Your task to perform on an android device: open app "Venmo" (install if not already installed), go to login, and select forgot password Image 0: 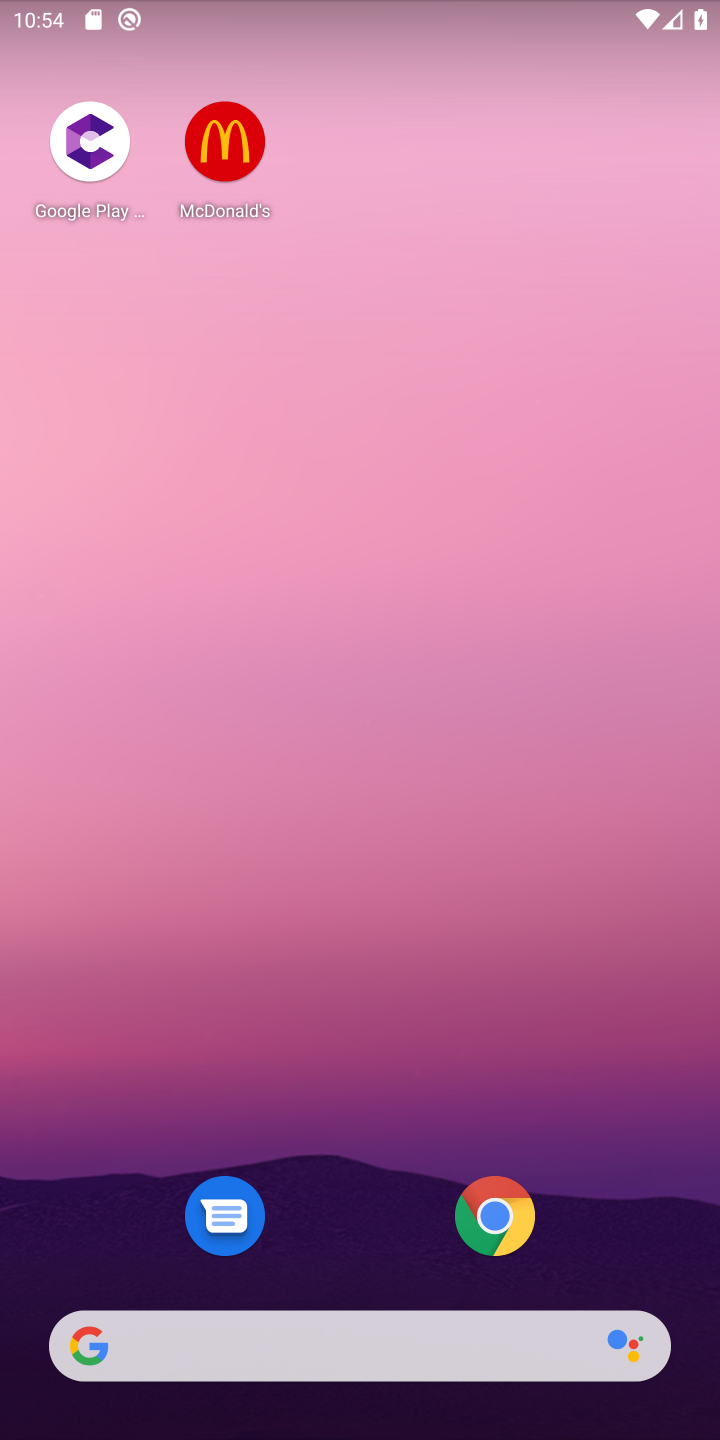
Step 0: drag from (422, 1081) to (452, 438)
Your task to perform on an android device: open app "Venmo" (install if not already installed), go to login, and select forgot password Image 1: 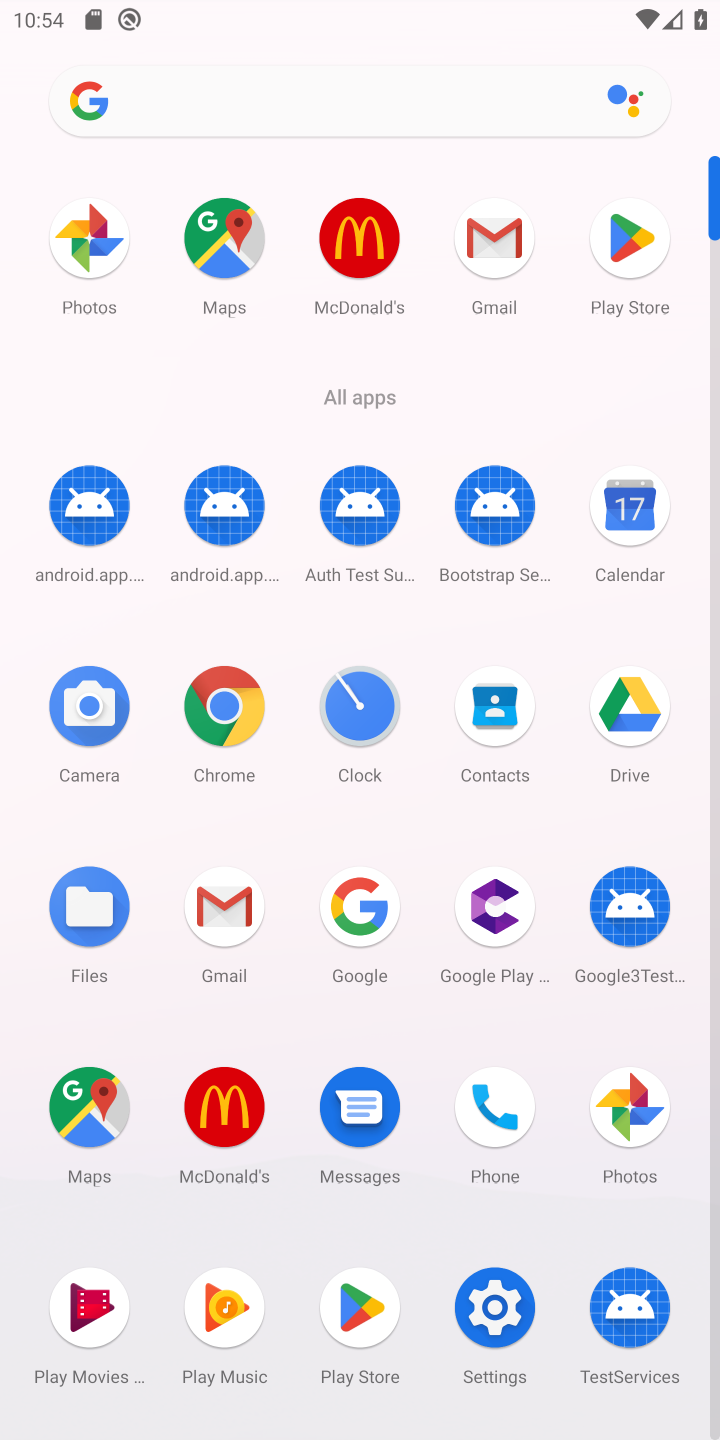
Step 1: click (639, 262)
Your task to perform on an android device: open app "Venmo" (install if not already installed), go to login, and select forgot password Image 2: 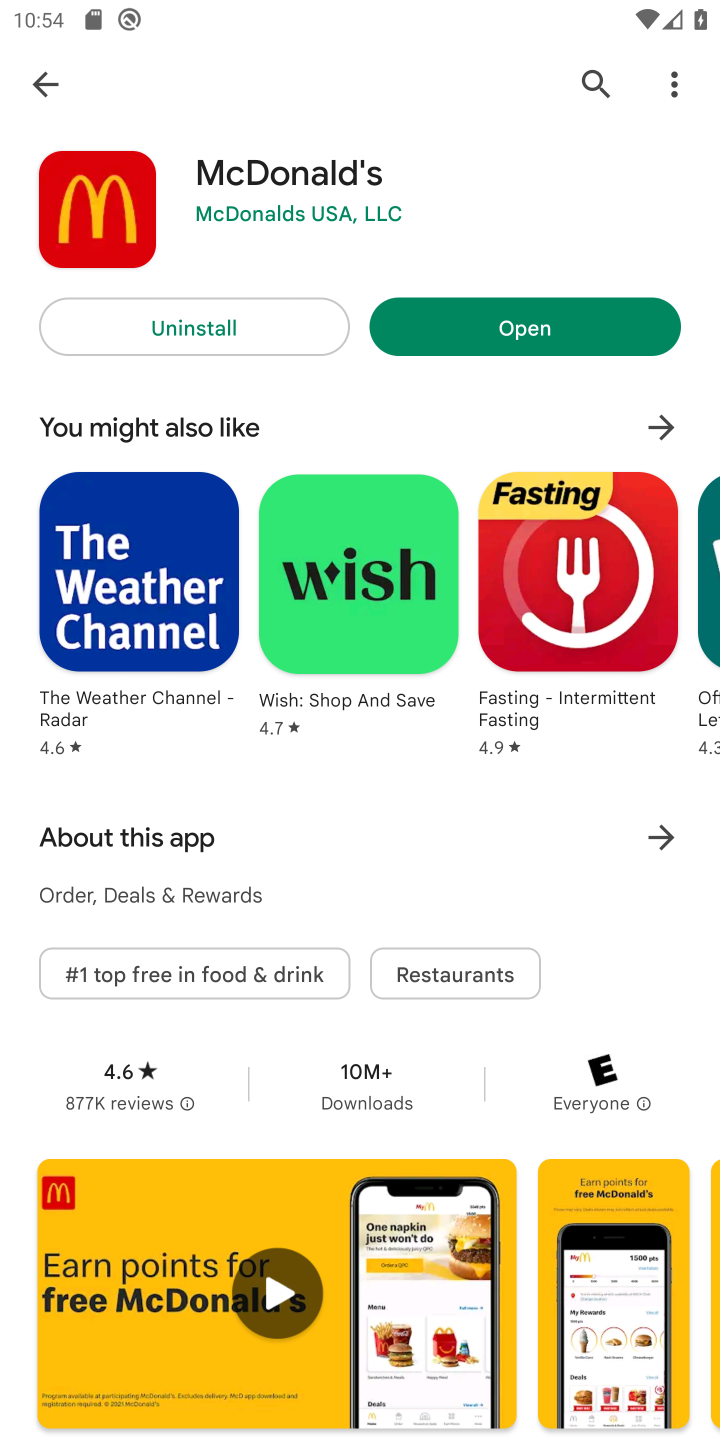
Step 2: click (598, 64)
Your task to perform on an android device: open app "Venmo" (install if not already installed), go to login, and select forgot password Image 3: 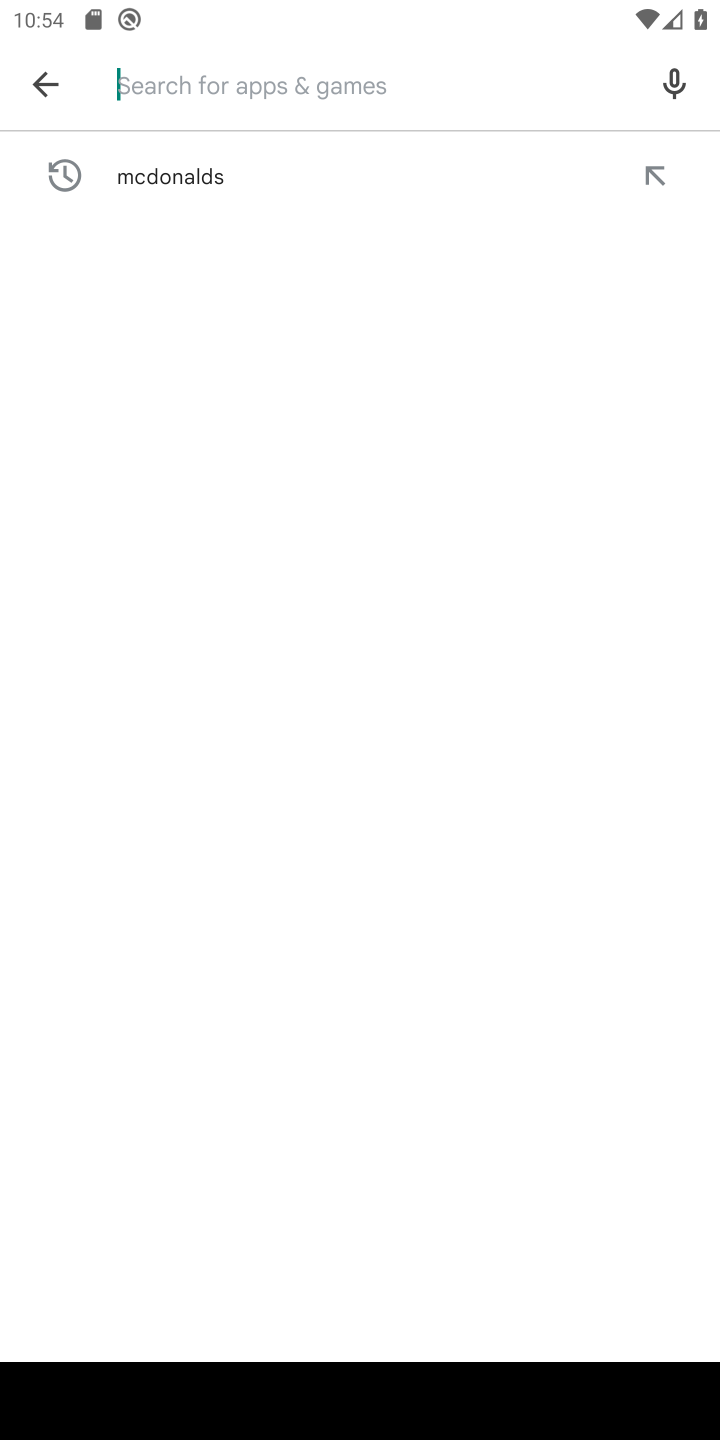
Step 3: type "venmo"
Your task to perform on an android device: open app "Venmo" (install if not already installed), go to login, and select forgot password Image 4: 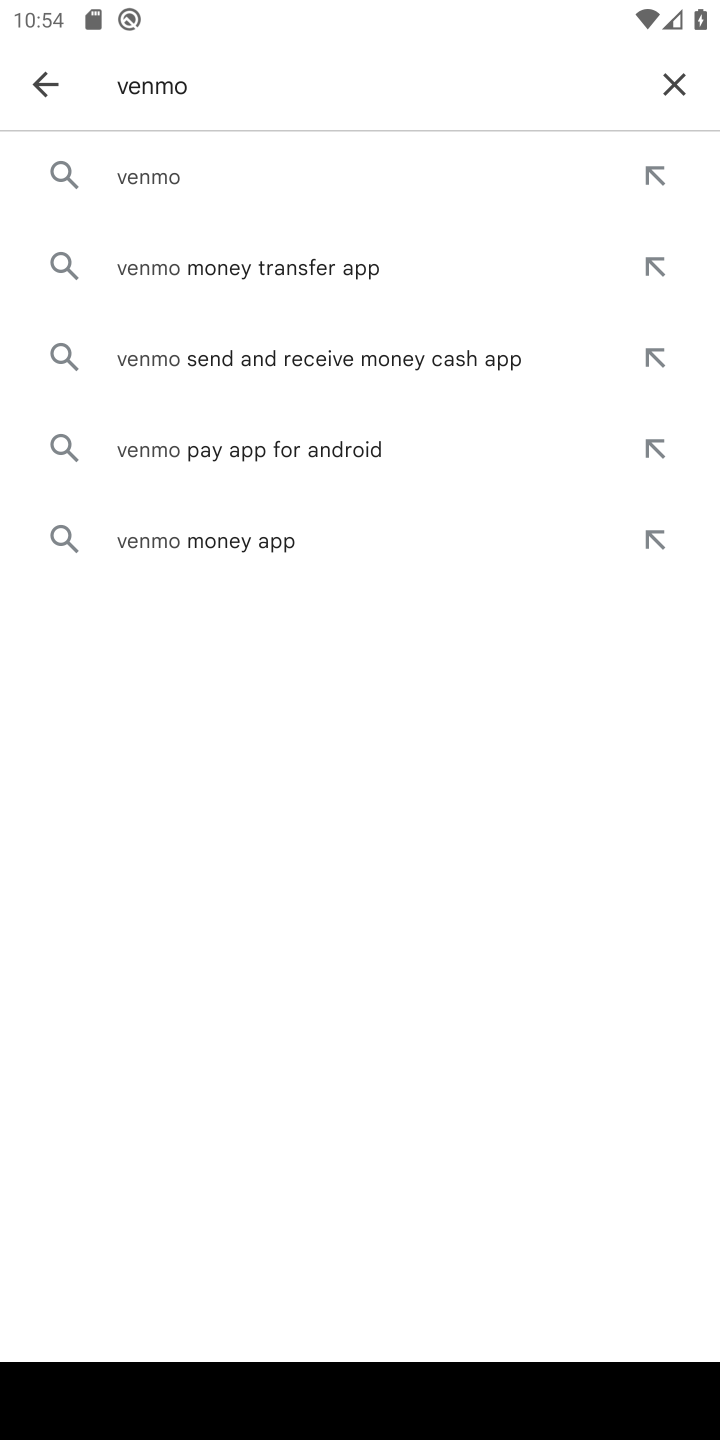
Step 4: click (418, 164)
Your task to perform on an android device: open app "Venmo" (install if not already installed), go to login, and select forgot password Image 5: 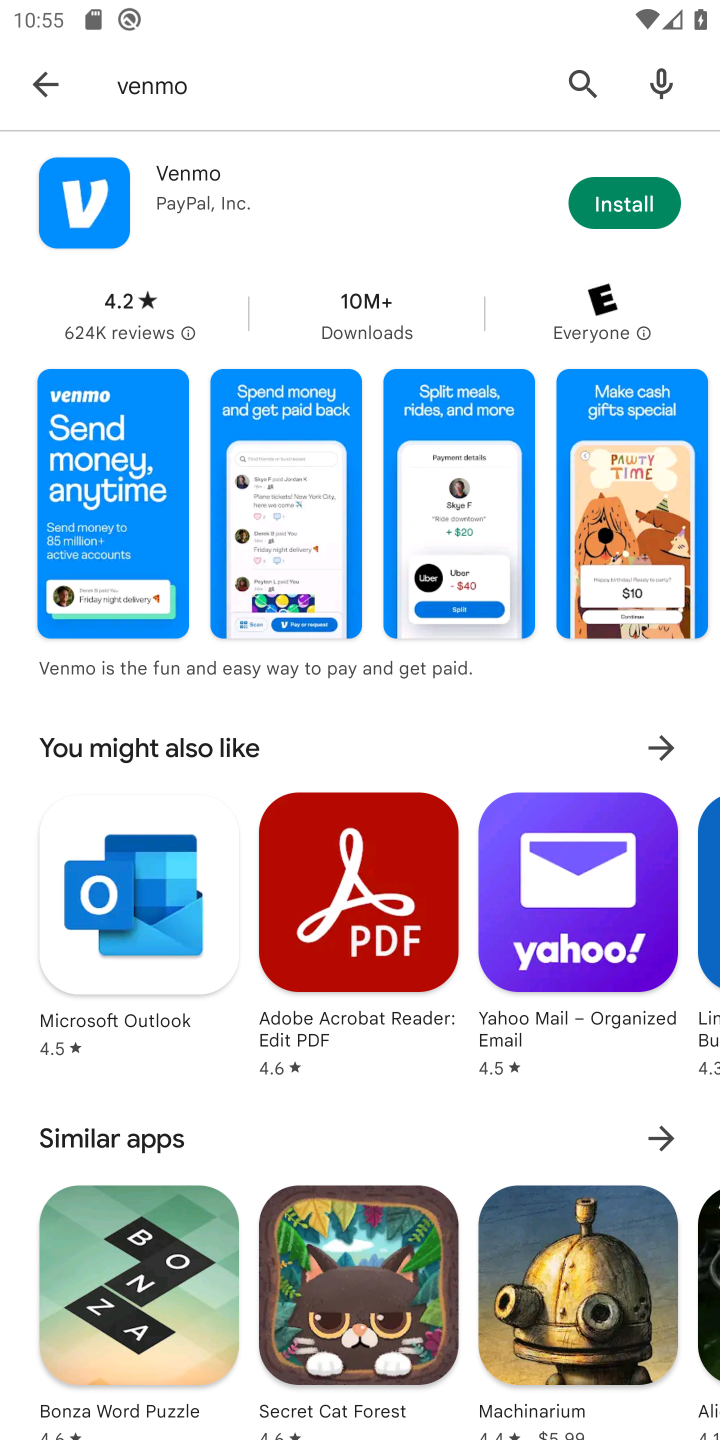
Step 5: click (651, 201)
Your task to perform on an android device: open app "Venmo" (install if not already installed), go to login, and select forgot password Image 6: 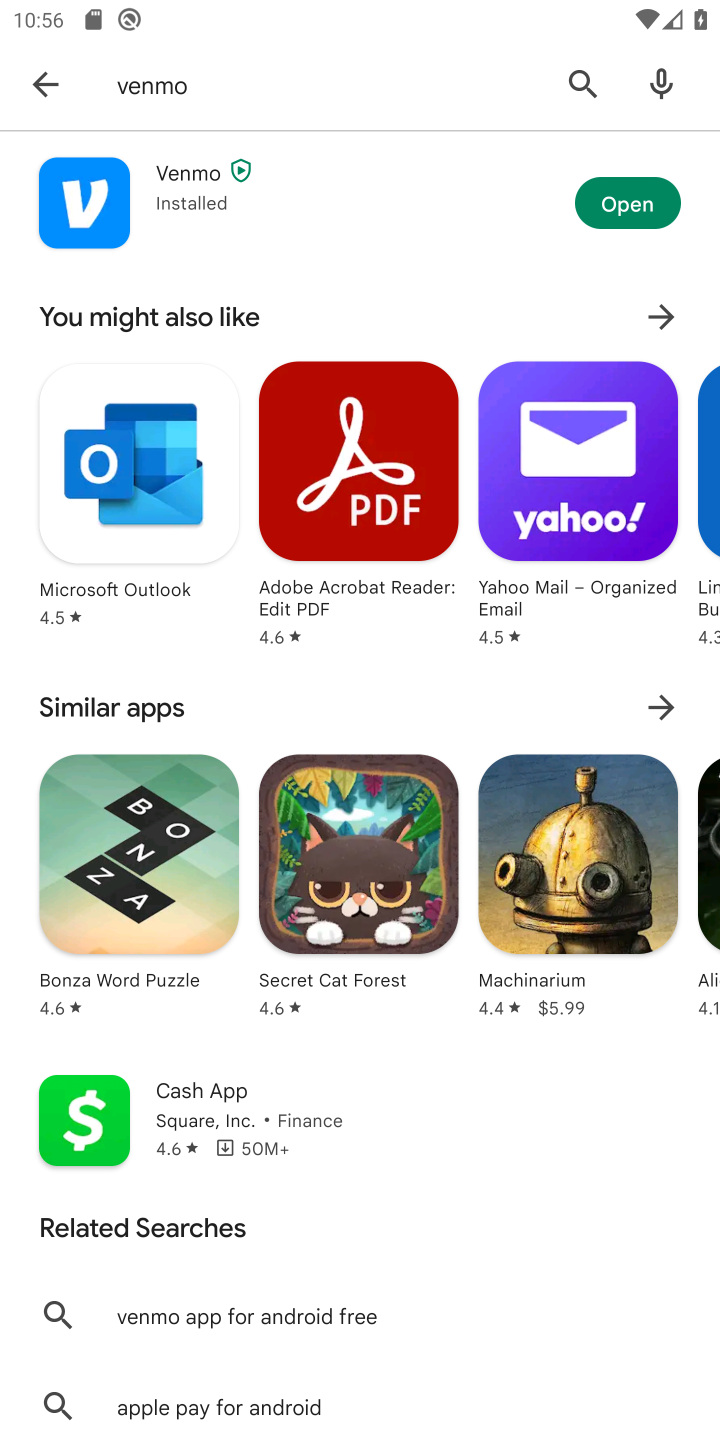
Step 6: click (607, 225)
Your task to perform on an android device: open app "Venmo" (install if not already installed), go to login, and select forgot password Image 7: 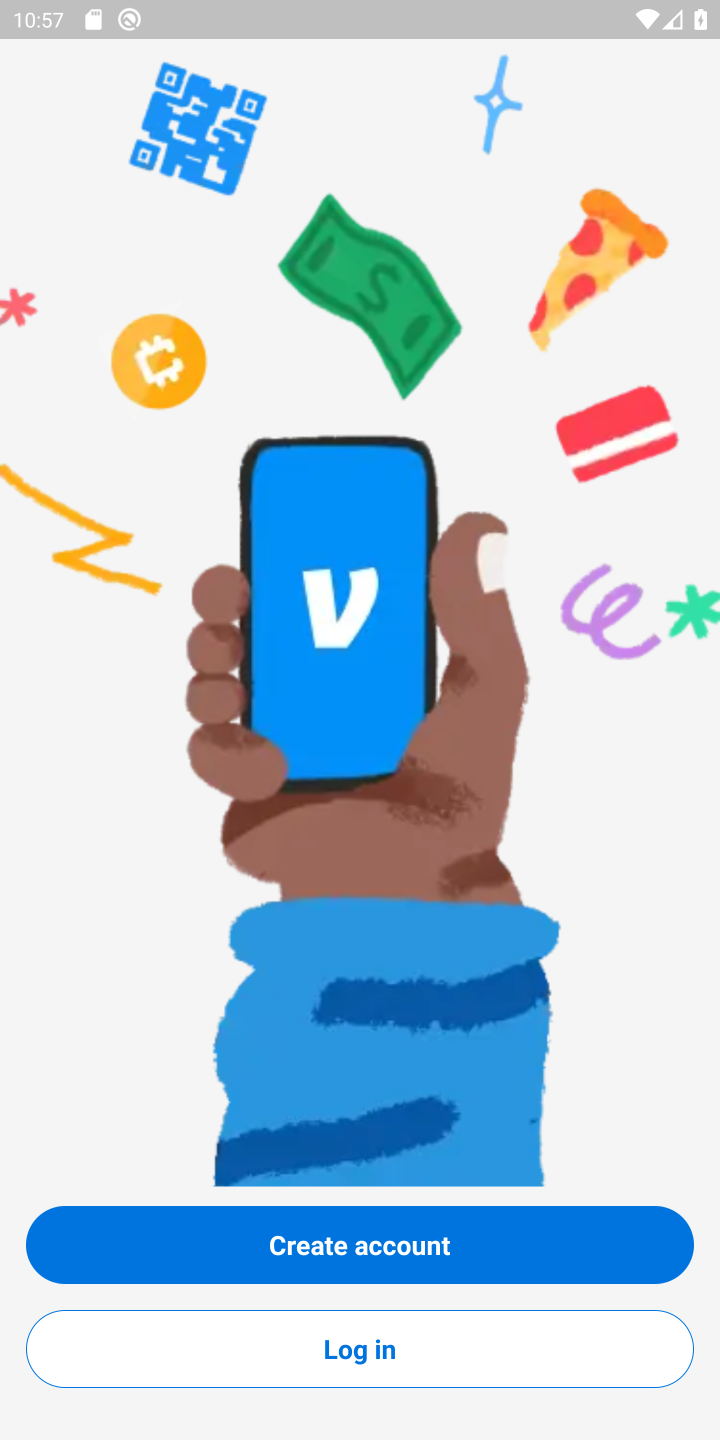
Step 7: click (445, 1336)
Your task to perform on an android device: open app "Venmo" (install if not already installed), go to login, and select forgot password Image 8: 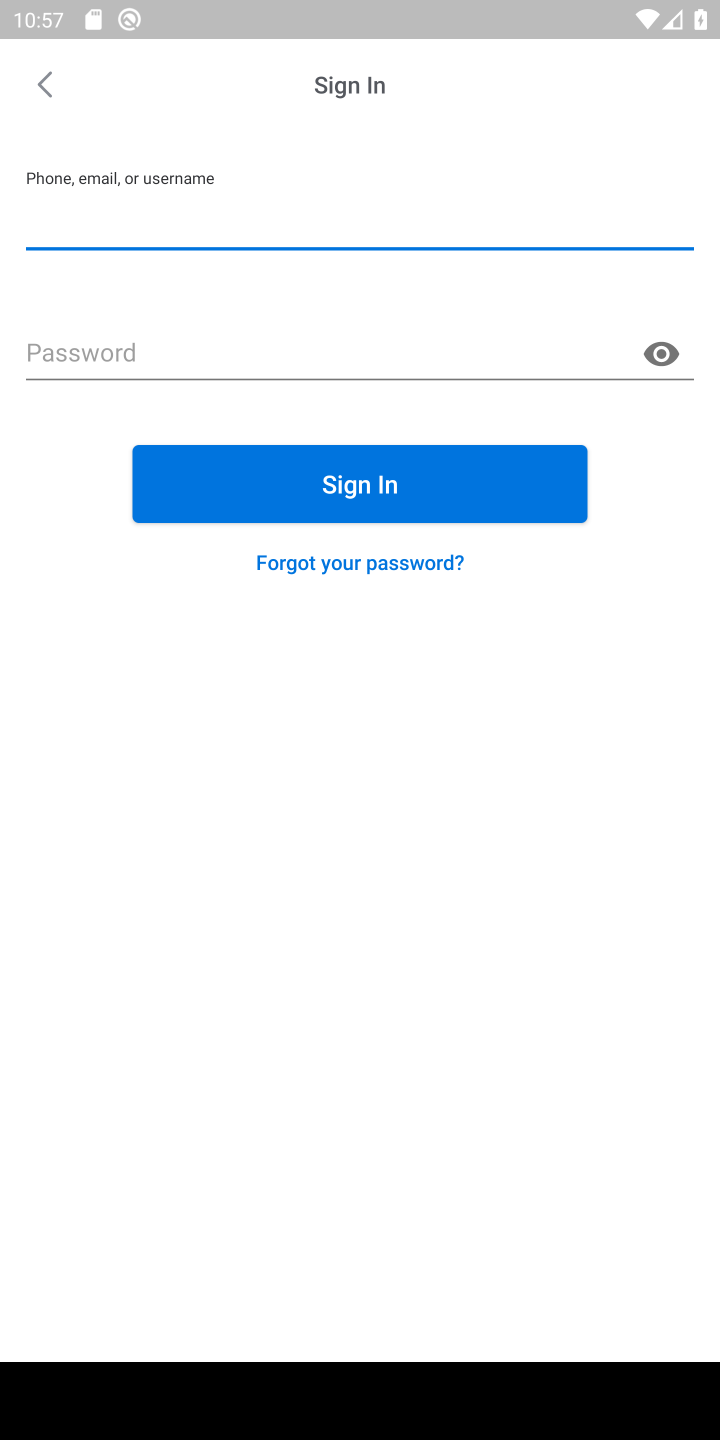
Step 8: click (367, 561)
Your task to perform on an android device: open app "Venmo" (install if not already installed), go to login, and select forgot password Image 9: 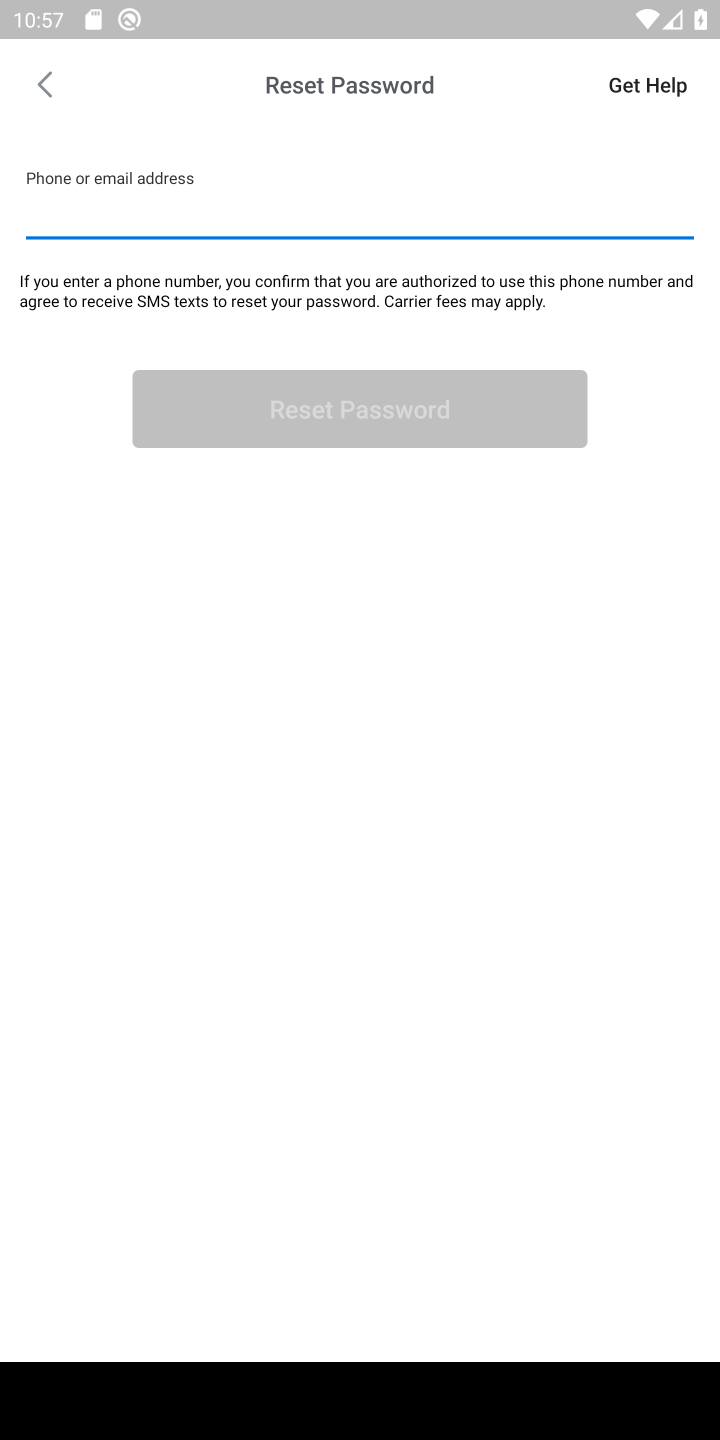
Step 9: task complete